Your task to perform on an android device: Open sound settings Image 0: 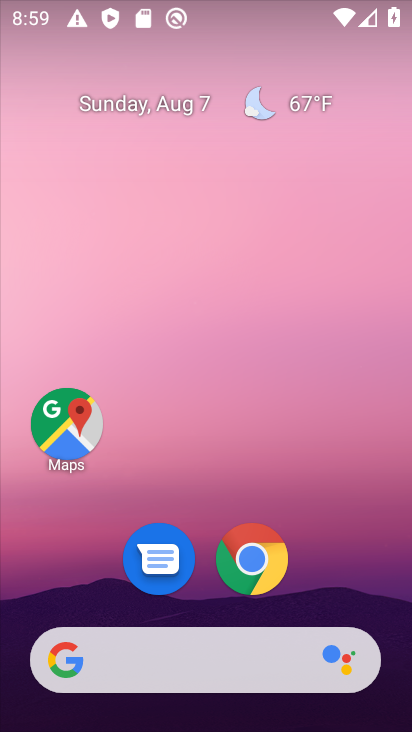
Step 0: drag from (258, 642) to (204, 223)
Your task to perform on an android device: Open sound settings Image 1: 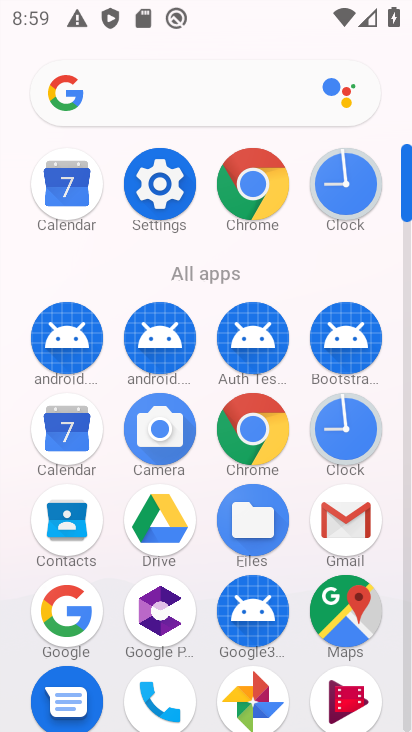
Step 1: click (165, 185)
Your task to perform on an android device: Open sound settings Image 2: 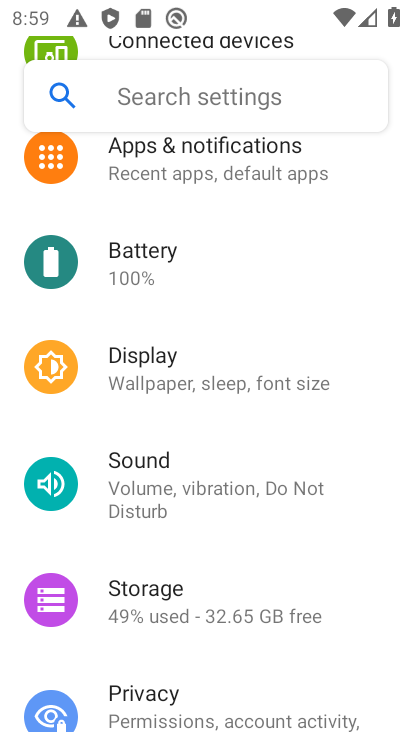
Step 2: click (165, 185)
Your task to perform on an android device: Open sound settings Image 3: 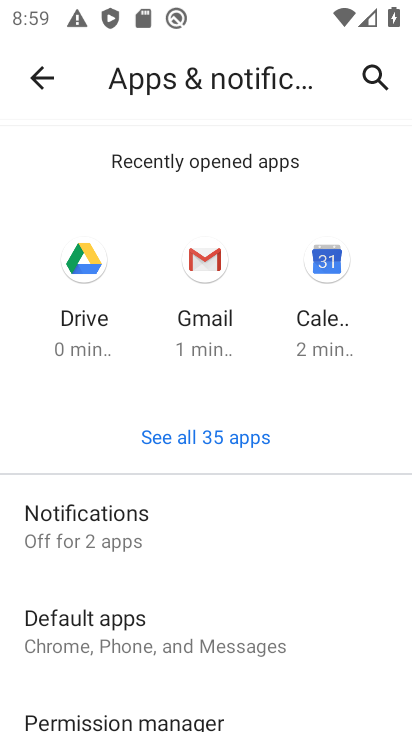
Step 3: press back button
Your task to perform on an android device: Open sound settings Image 4: 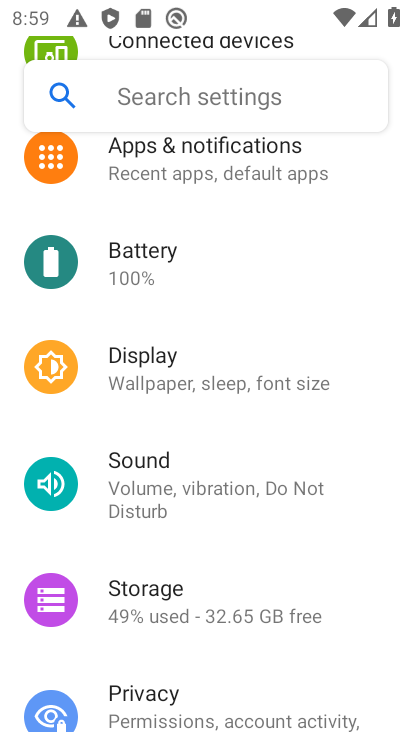
Step 4: click (263, 468)
Your task to perform on an android device: Open sound settings Image 5: 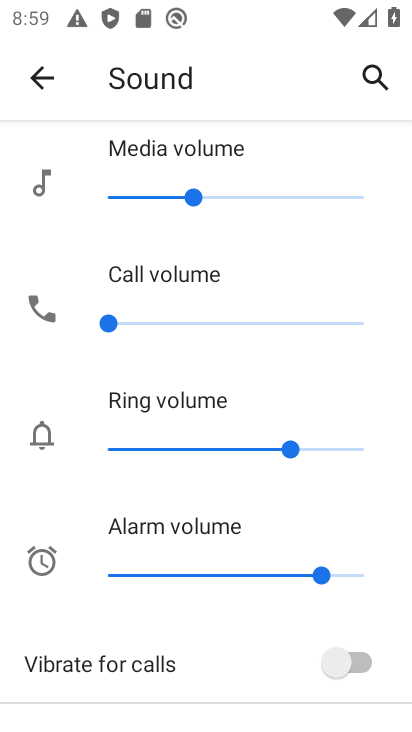
Step 5: task complete